Your task to perform on an android device: check the backup settings in the google photos Image 0: 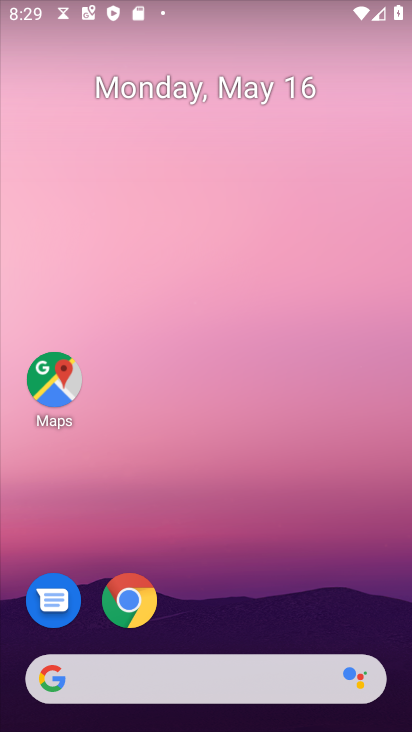
Step 0: drag from (333, 469) to (368, 74)
Your task to perform on an android device: check the backup settings in the google photos Image 1: 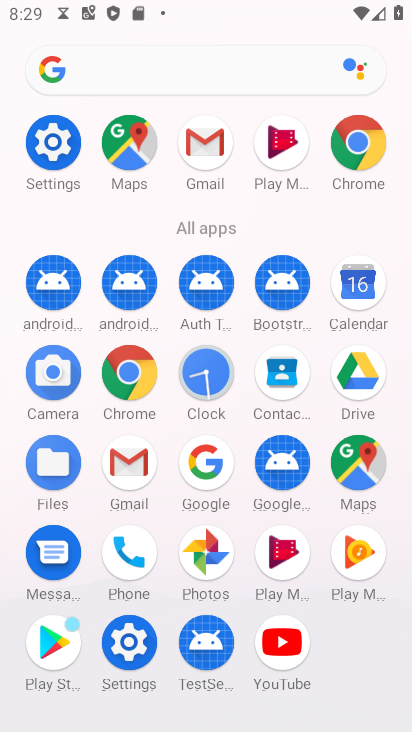
Step 1: click (202, 561)
Your task to perform on an android device: check the backup settings in the google photos Image 2: 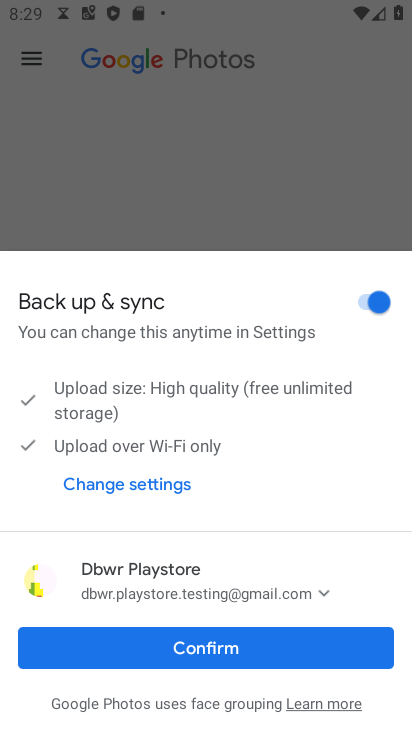
Step 2: click (217, 642)
Your task to perform on an android device: check the backup settings in the google photos Image 3: 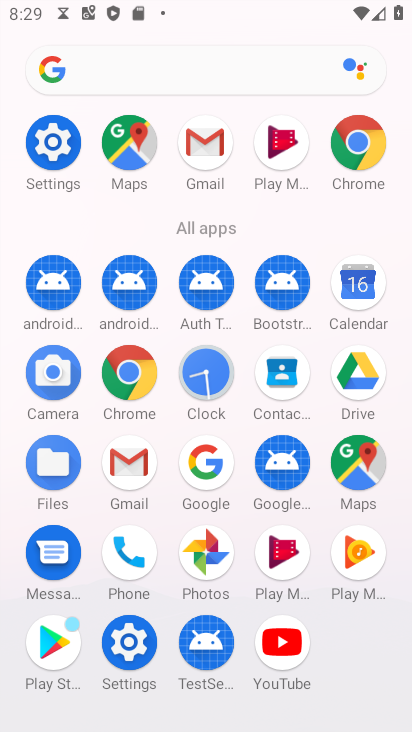
Step 3: click (214, 571)
Your task to perform on an android device: check the backup settings in the google photos Image 4: 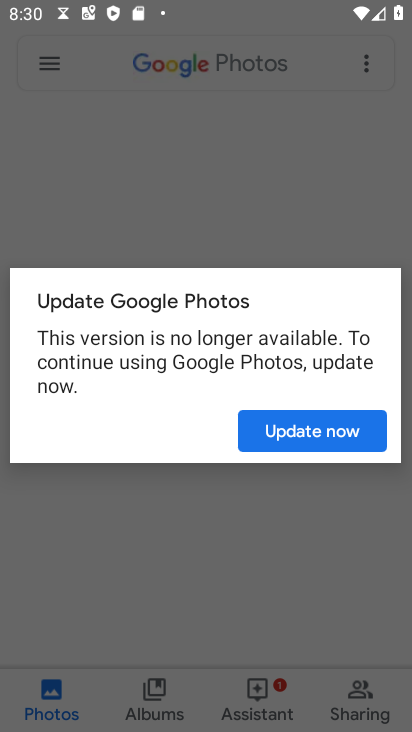
Step 4: click (318, 454)
Your task to perform on an android device: check the backup settings in the google photos Image 5: 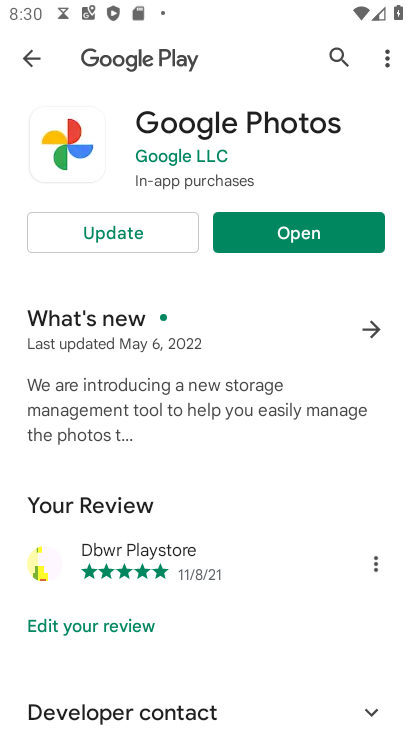
Step 5: click (127, 238)
Your task to perform on an android device: check the backup settings in the google photos Image 6: 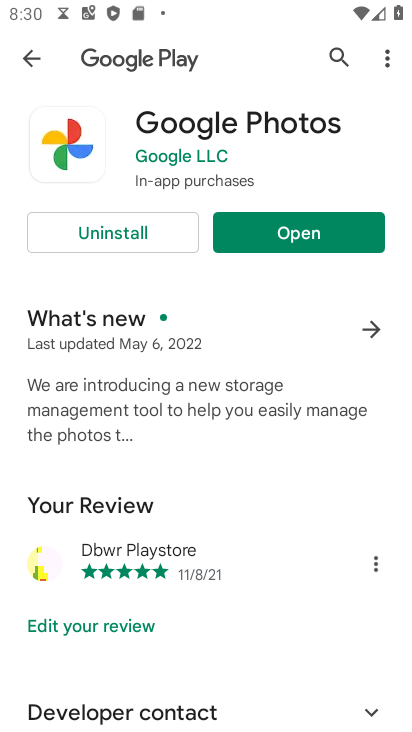
Step 6: click (283, 224)
Your task to perform on an android device: check the backup settings in the google photos Image 7: 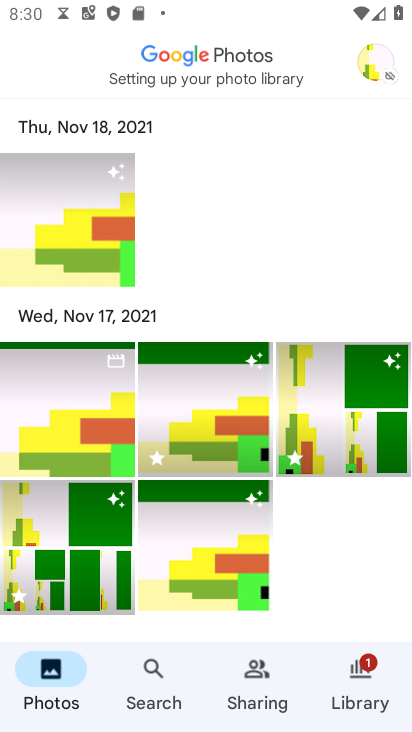
Step 7: click (344, 72)
Your task to perform on an android device: check the backup settings in the google photos Image 8: 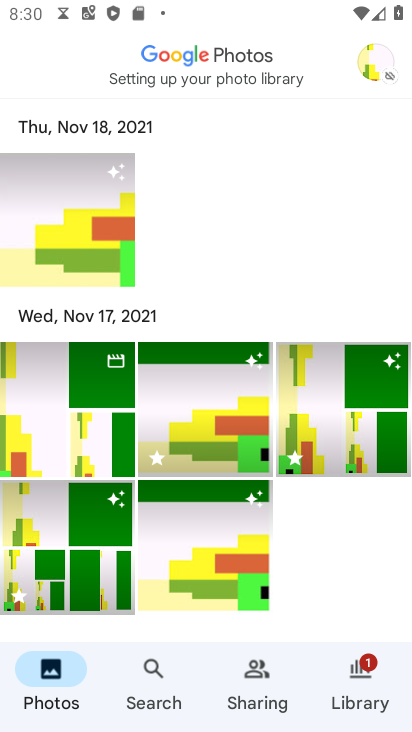
Step 8: task complete